Your task to perform on an android device: add a label to a message in the gmail app Image 0: 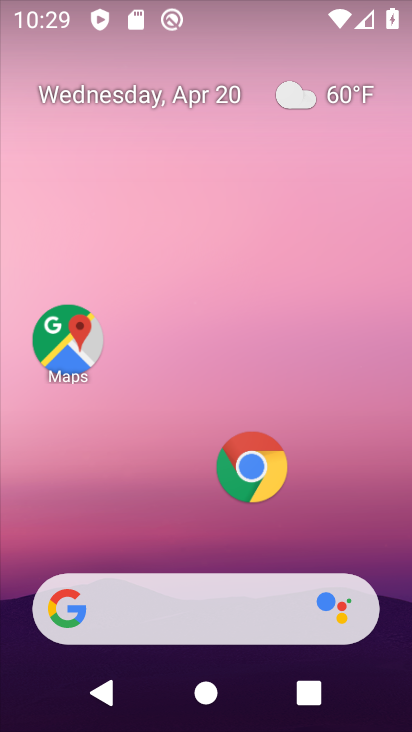
Step 0: drag from (329, 530) to (339, 61)
Your task to perform on an android device: add a label to a message in the gmail app Image 1: 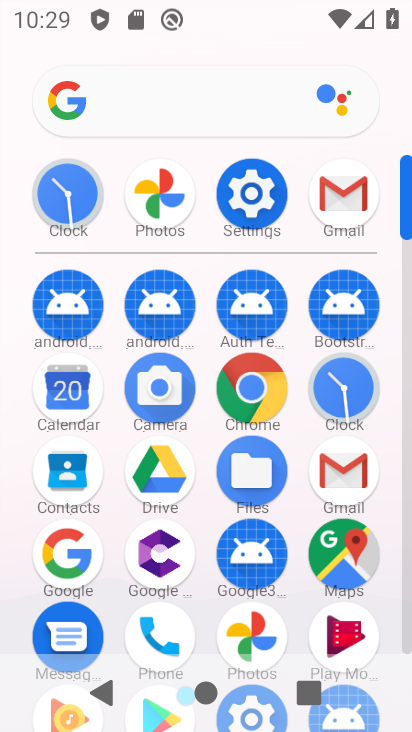
Step 1: click (330, 201)
Your task to perform on an android device: add a label to a message in the gmail app Image 2: 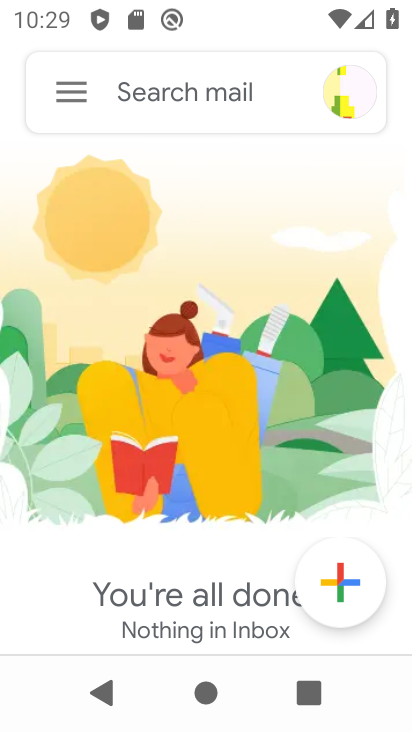
Step 2: click (68, 97)
Your task to perform on an android device: add a label to a message in the gmail app Image 3: 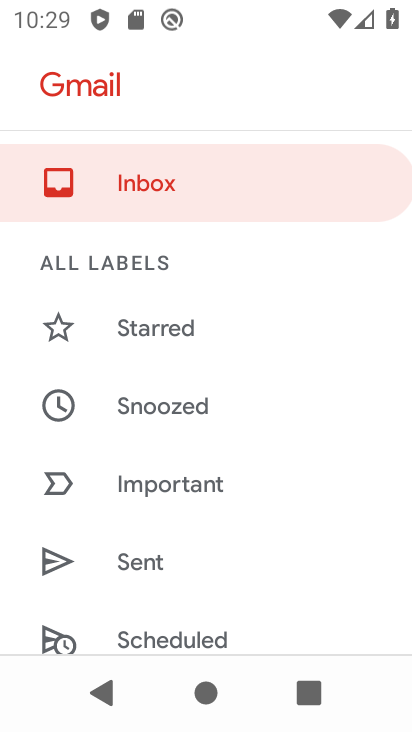
Step 3: drag from (126, 572) to (138, 395)
Your task to perform on an android device: add a label to a message in the gmail app Image 4: 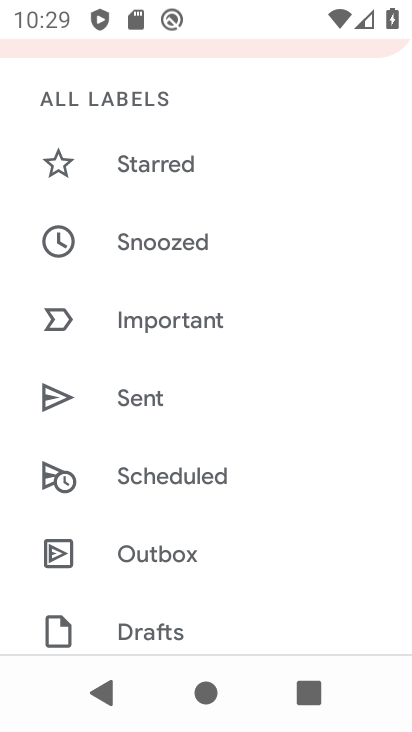
Step 4: drag from (119, 554) to (146, 443)
Your task to perform on an android device: add a label to a message in the gmail app Image 5: 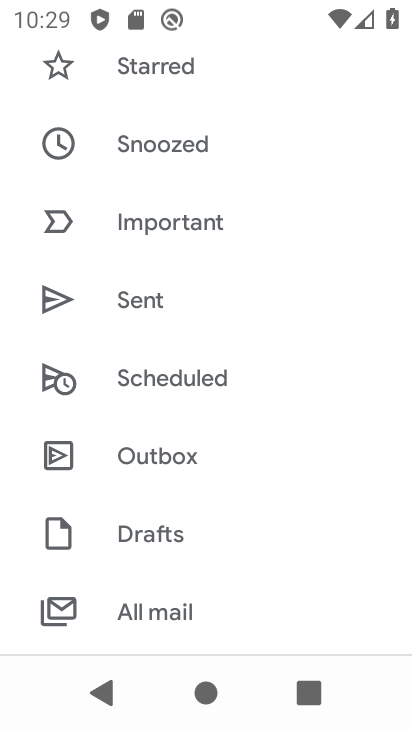
Step 5: drag from (171, 586) to (166, 453)
Your task to perform on an android device: add a label to a message in the gmail app Image 6: 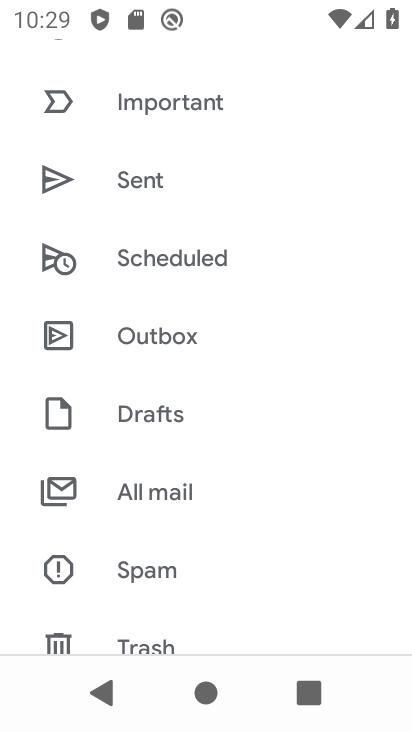
Step 6: click (179, 502)
Your task to perform on an android device: add a label to a message in the gmail app Image 7: 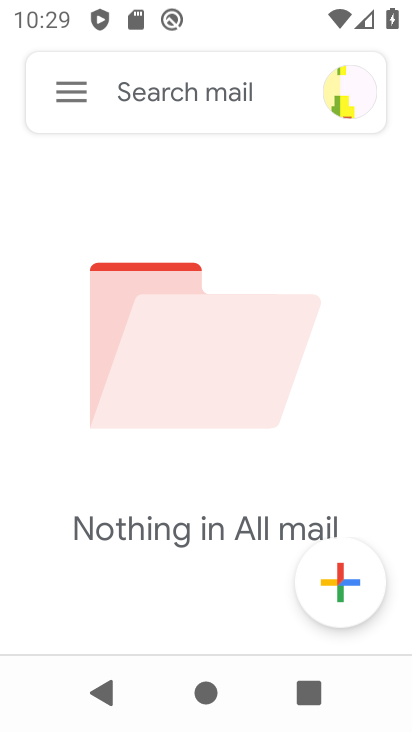
Step 7: task complete